Your task to perform on an android device: Go to internet settings Image 0: 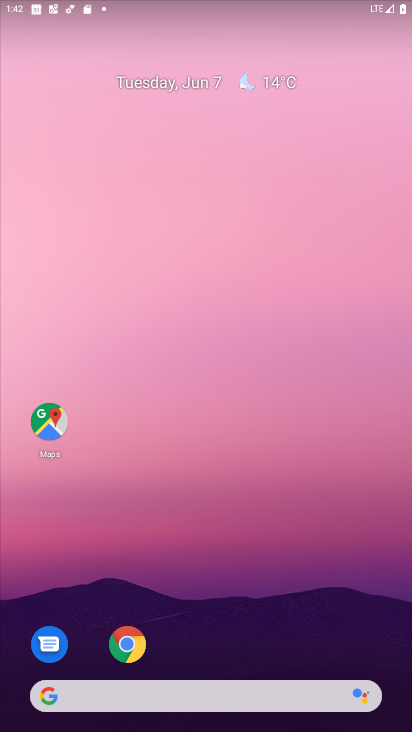
Step 0: drag from (243, 645) to (227, 0)
Your task to perform on an android device: Go to internet settings Image 1: 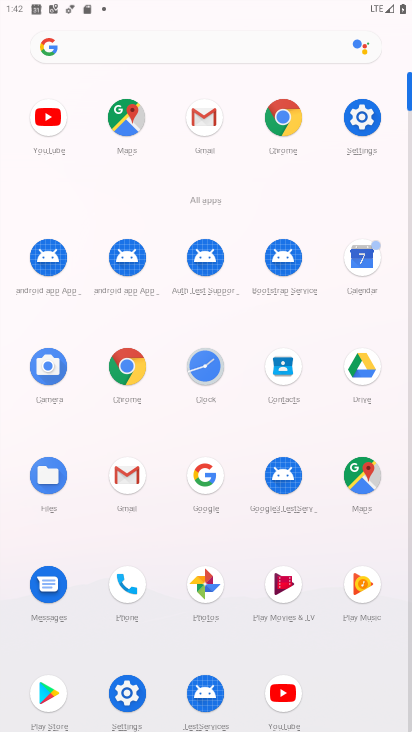
Step 1: click (357, 118)
Your task to perform on an android device: Go to internet settings Image 2: 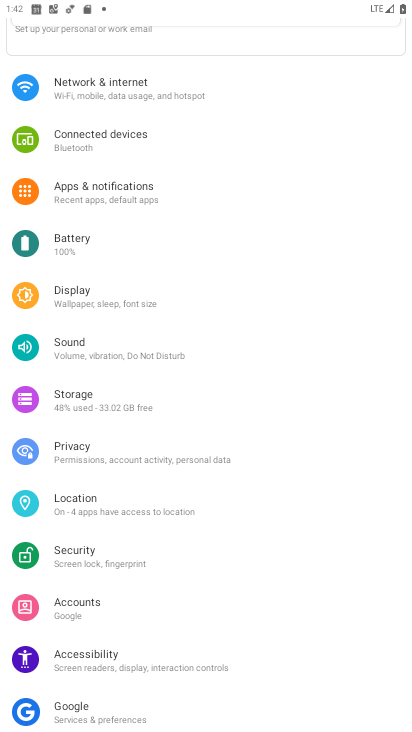
Step 2: click (108, 100)
Your task to perform on an android device: Go to internet settings Image 3: 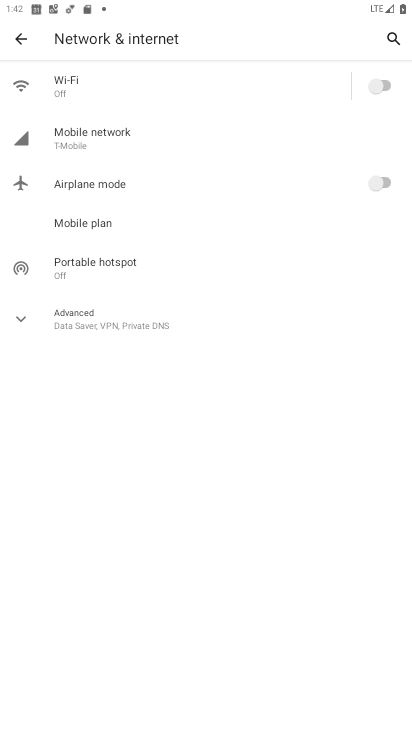
Step 3: click (82, 145)
Your task to perform on an android device: Go to internet settings Image 4: 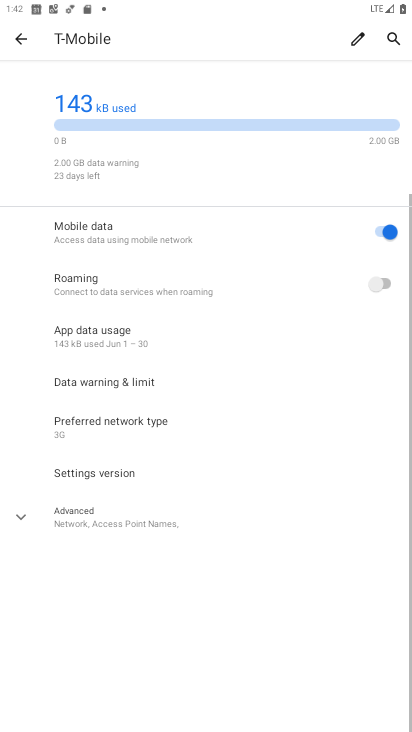
Step 4: task complete